Your task to perform on an android device: Go to Google maps Image 0: 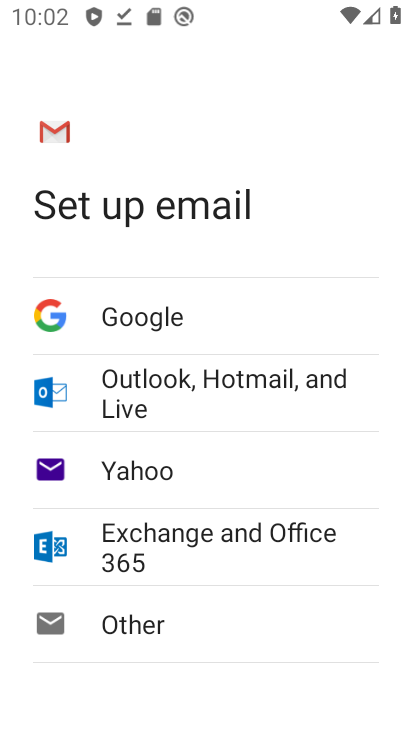
Step 0: drag from (400, 616) to (178, 0)
Your task to perform on an android device: Go to Google maps Image 1: 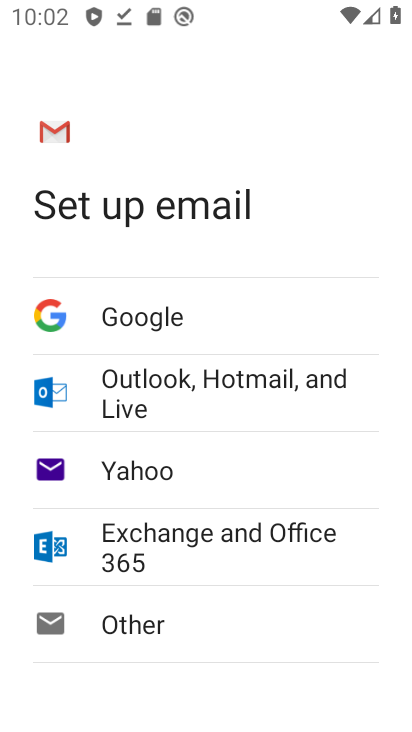
Step 1: press back button
Your task to perform on an android device: Go to Google maps Image 2: 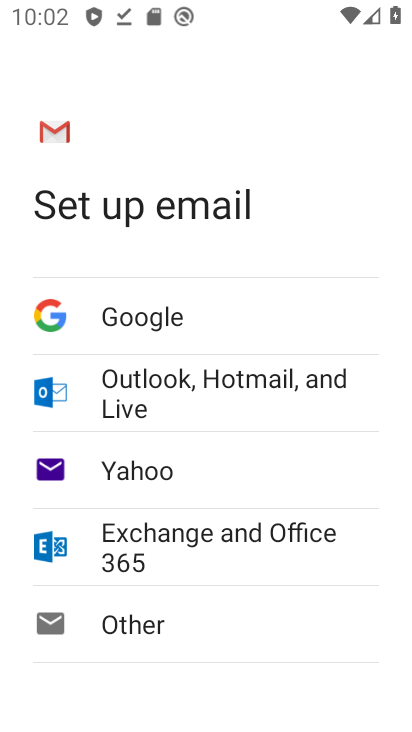
Step 2: press back button
Your task to perform on an android device: Go to Google maps Image 3: 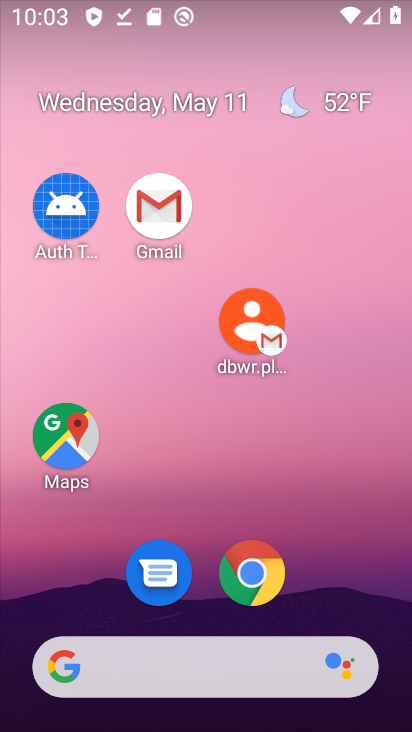
Step 3: click (59, 438)
Your task to perform on an android device: Go to Google maps Image 4: 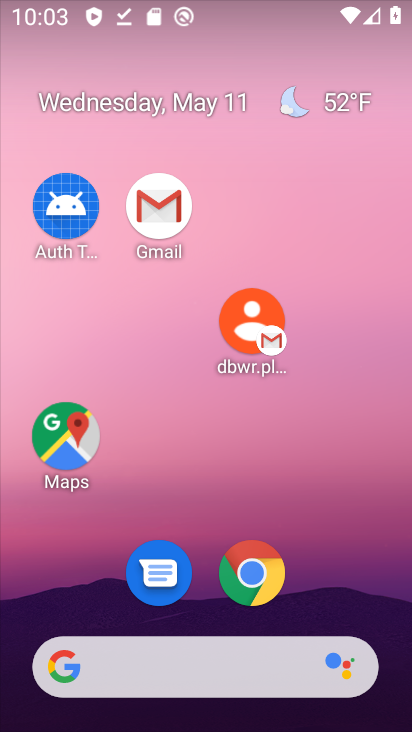
Step 4: click (61, 434)
Your task to perform on an android device: Go to Google maps Image 5: 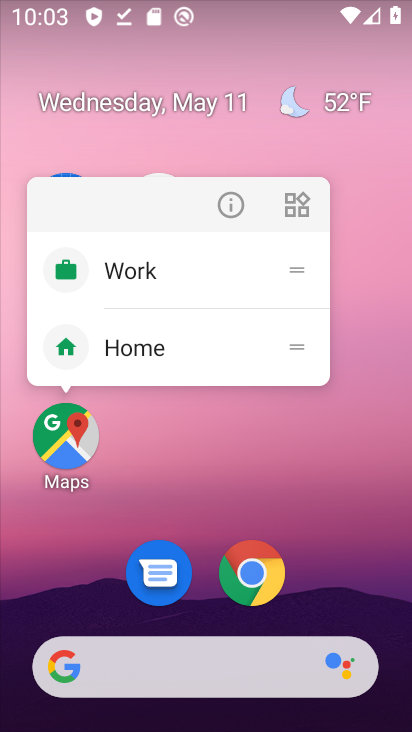
Step 5: click (71, 441)
Your task to perform on an android device: Go to Google maps Image 6: 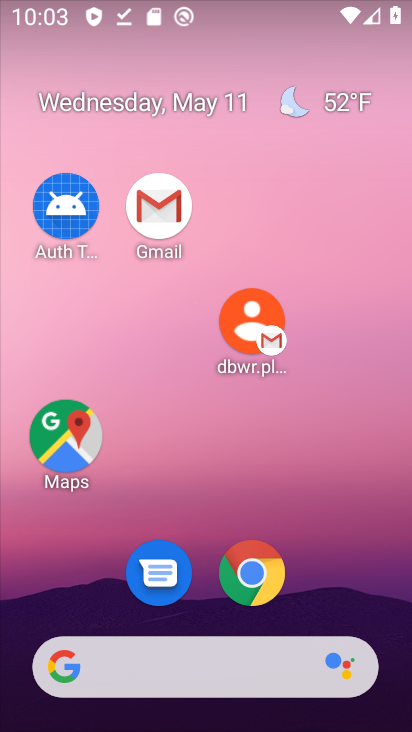
Step 6: click (71, 441)
Your task to perform on an android device: Go to Google maps Image 7: 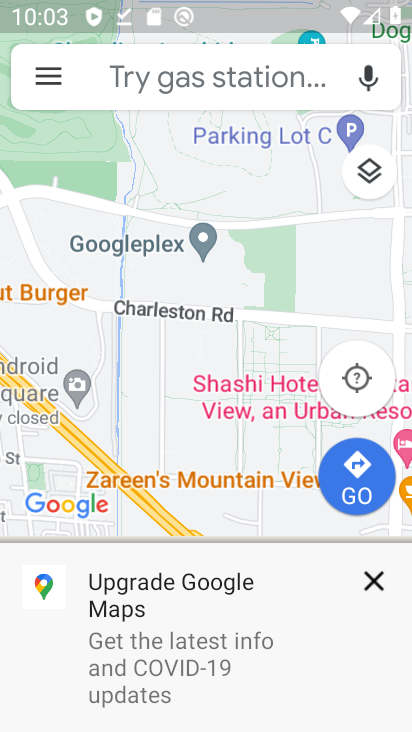
Step 7: click (48, 85)
Your task to perform on an android device: Go to Google maps Image 8: 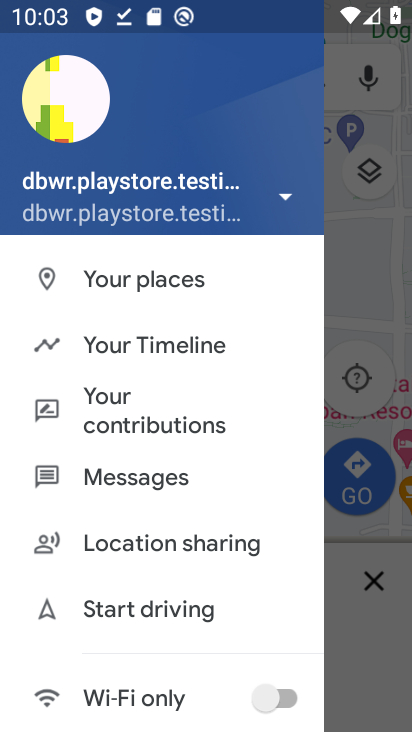
Step 8: click (345, 298)
Your task to perform on an android device: Go to Google maps Image 9: 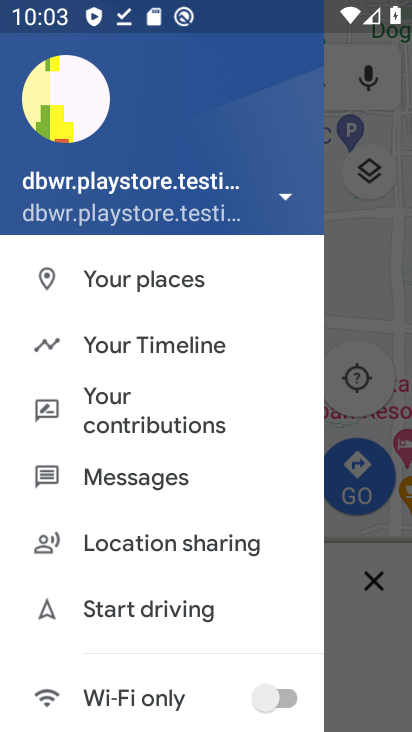
Step 9: click (345, 295)
Your task to perform on an android device: Go to Google maps Image 10: 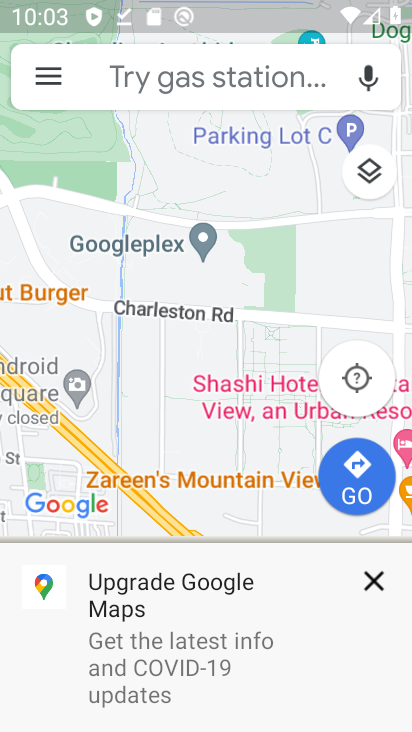
Step 10: click (345, 295)
Your task to perform on an android device: Go to Google maps Image 11: 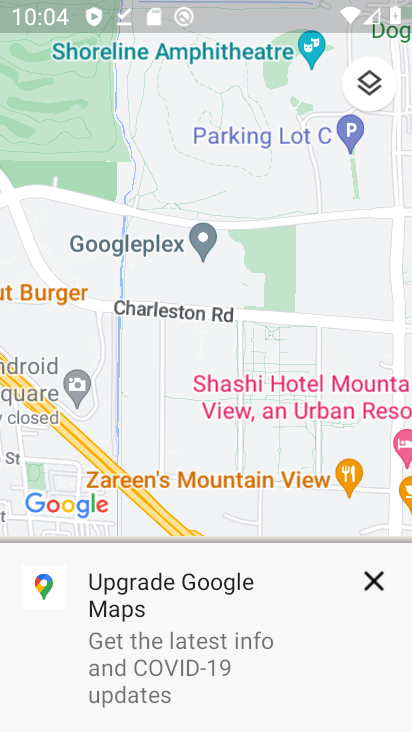
Step 11: click (255, 272)
Your task to perform on an android device: Go to Google maps Image 12: 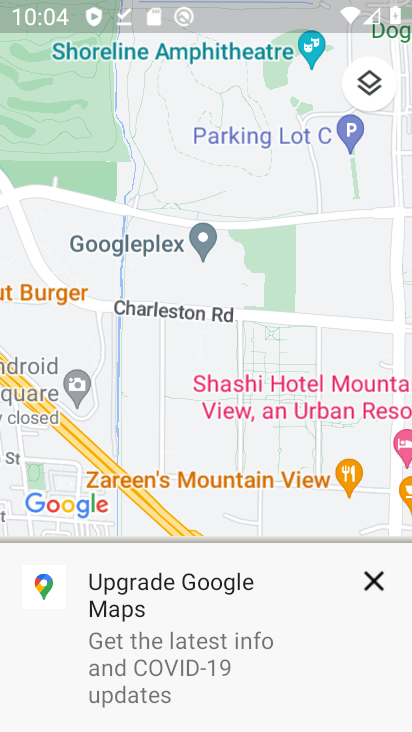
Step 12: click (252, 274)
Your task to perform on an android device: Go to Google maps Image 13: 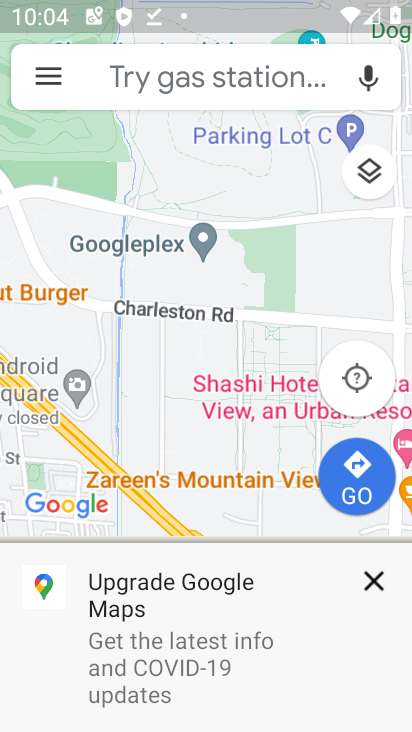
Step 13: task complete